Your task to perform on an android device: Go to CNN.com Image 0: 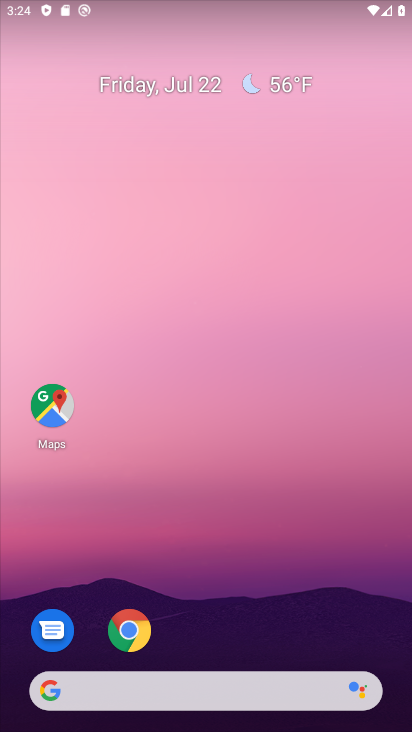
Step 0: click (121, 640)
Your task to perform on an android device: Go to CNN.com Image 1: 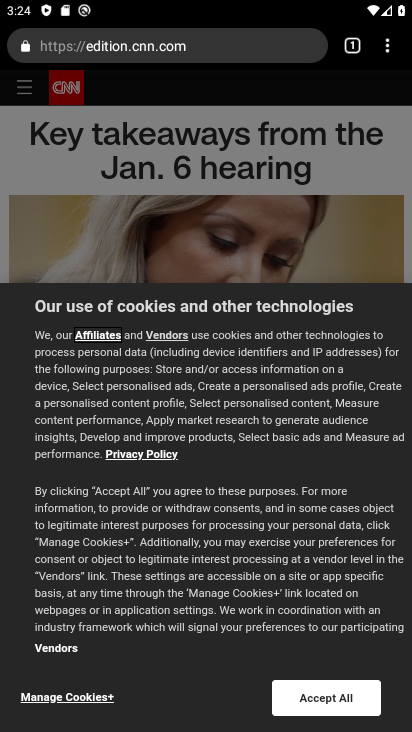
Step 1: click (199, 43)
Your task to perform on an android device: Go to CNN.com Image 2: 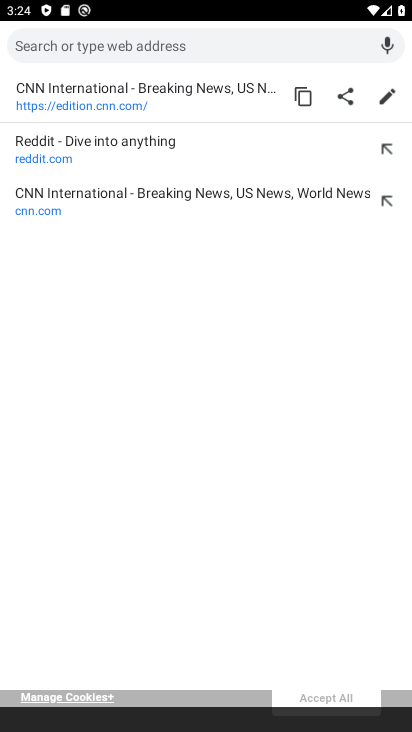
Step 2: click (197, 43)
Your task to perform on an android device: Go to CNN.com Image 3: 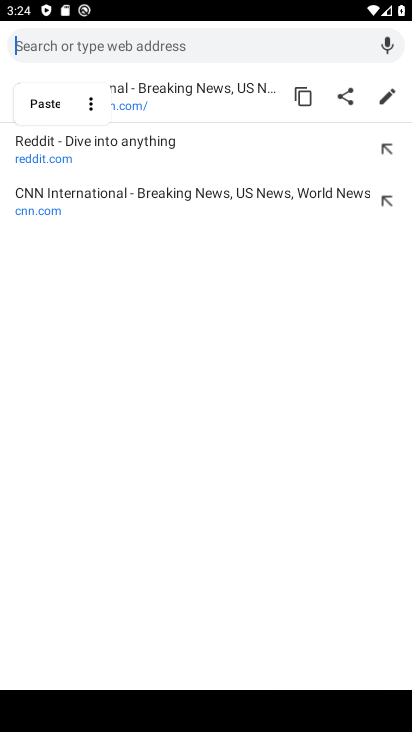
Step 3: type "CNN.com"
Your task to perform on an android device: Go to CNN.com Image 4: 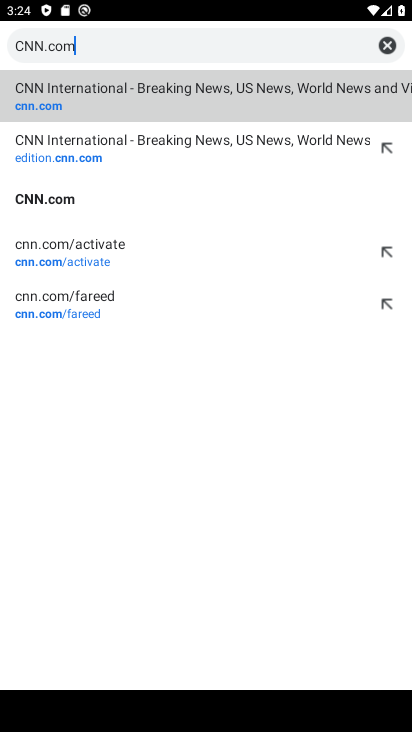
Step 4: click (49, 105)
Your task to perform on an android device: Go to CNN.com Image 5: 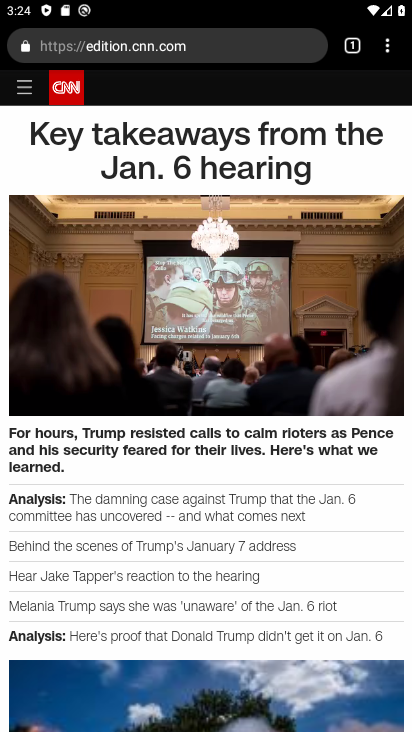
Step 5: task complete